Your task to perform on an android device: turn on the 12-hour format for clock Image 0: 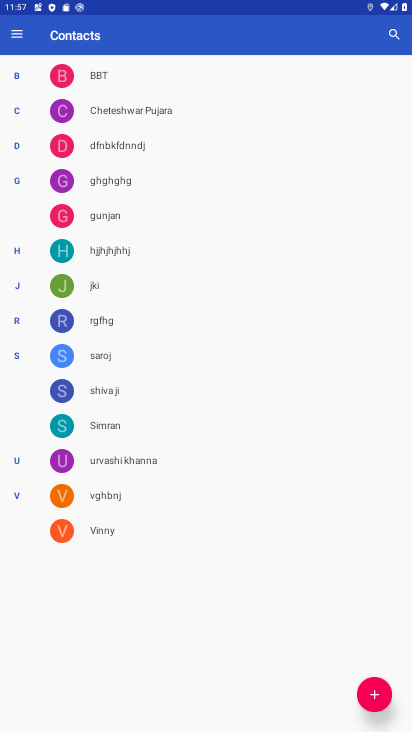
Step 0: press home button
Your task to perform on an android device: turn on the 12-hour format for clock Image 1: 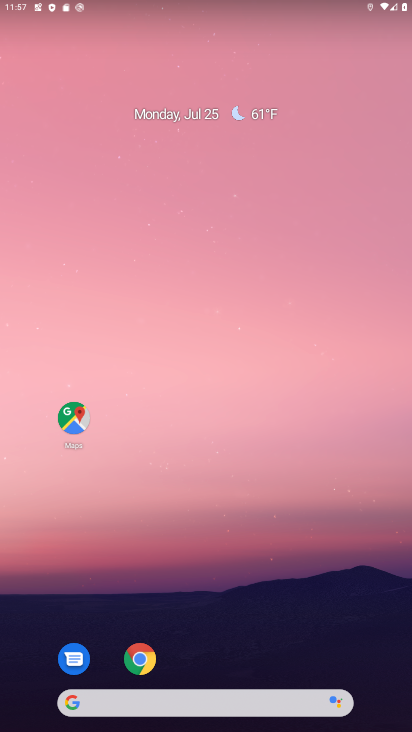
Step 1: drag from (213, 724) to (213, 446)
Your task to perform on an android device: turn on the 12-hour format for clock Image 2: 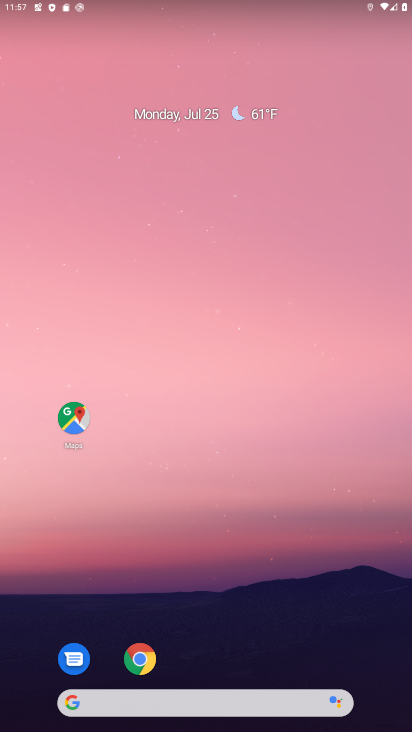
Step 2: drag from (210, 713) to (208, 256)
Your task to perform on an android device: turn on the 12-hour format for clock Image 3: 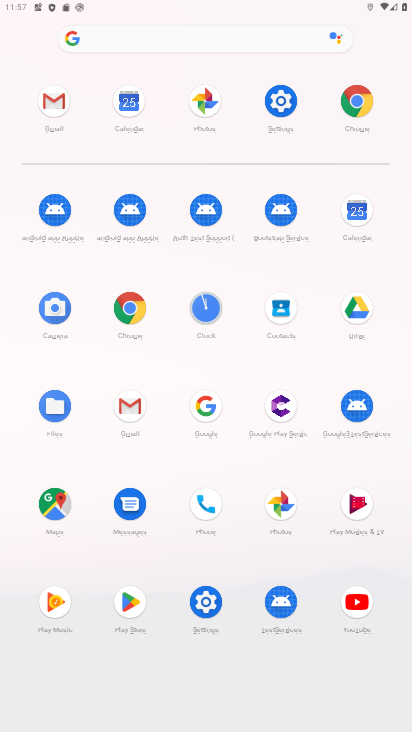
Step 3: click (210, 308)
Your task to perform on an android device: turn on the 12-hour format for clock Image 4: 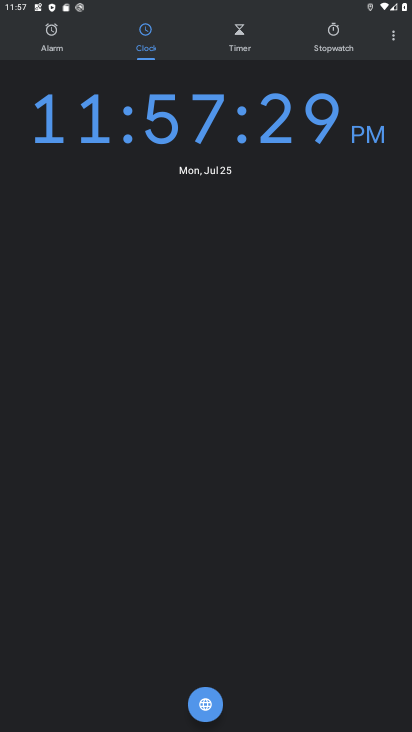
Step 4: click (394, 42)
Your task to perform on an android device: turn on the 12-hour format for clock Image 5: 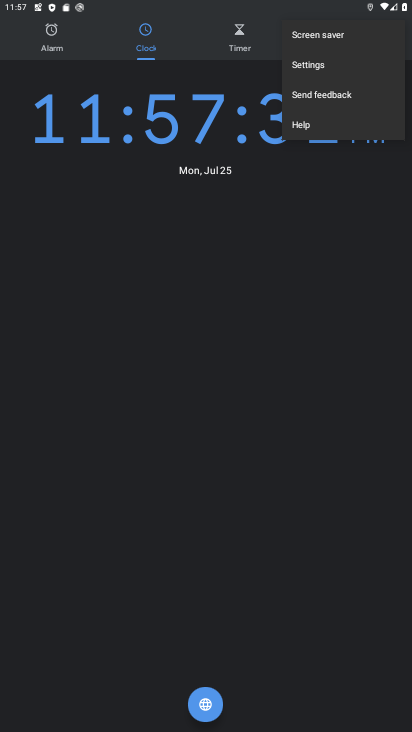
Step 5: click (310, 67)
Your task to perform on an android device: turn on the 12-hour format for clock Image 6: 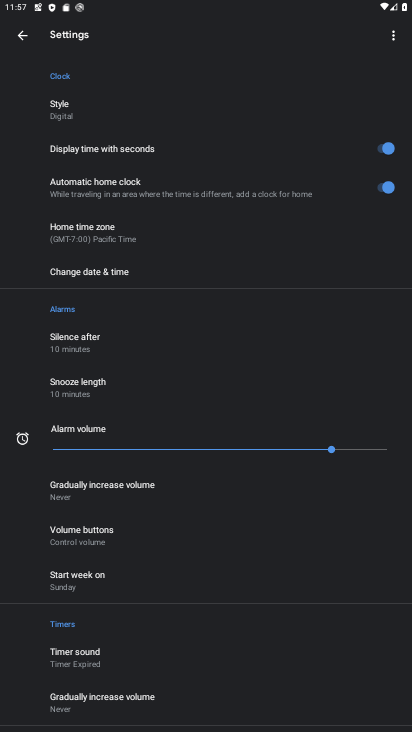
Step 6: click (92, 270)
Your task to perform on an android device: turn on the 12-hour format for clock Image 7: 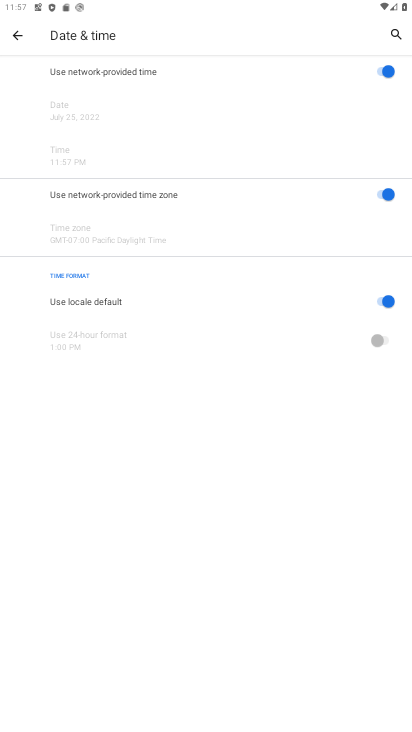
Step 7: task complete